Your task to perform on an android device: open a bookmark in the chrome app Image 0: 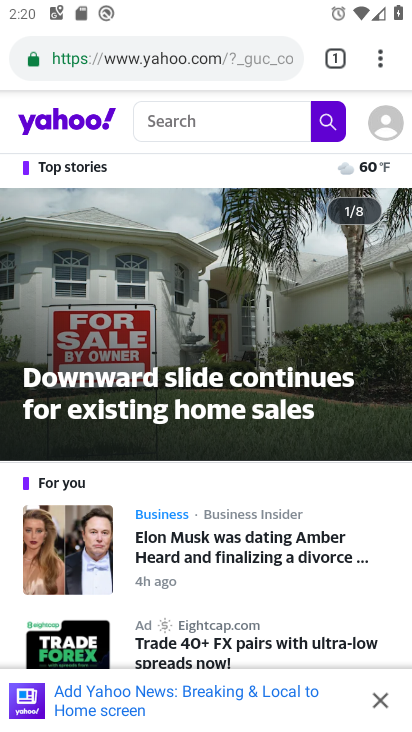
Step 0: click (375, 63)
Your task to perform on an android device: open a bookmark in the chrome app Image 1: 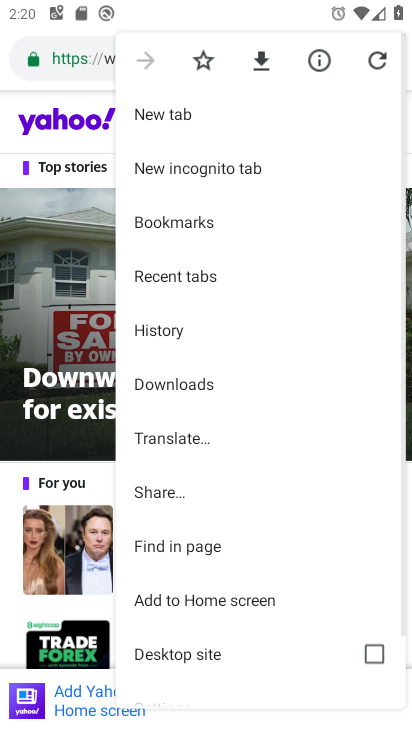
Step 1: click (196, 229)
Your task to perform on an android device: open a bookmark in the chrome app Image 2: 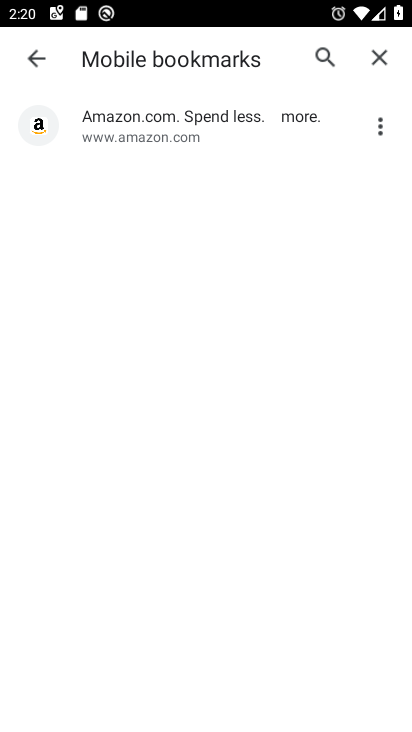
Step 2: click (165, 133)
Your task to perform on an android device: open a bookmark in the chrome app Image 3: 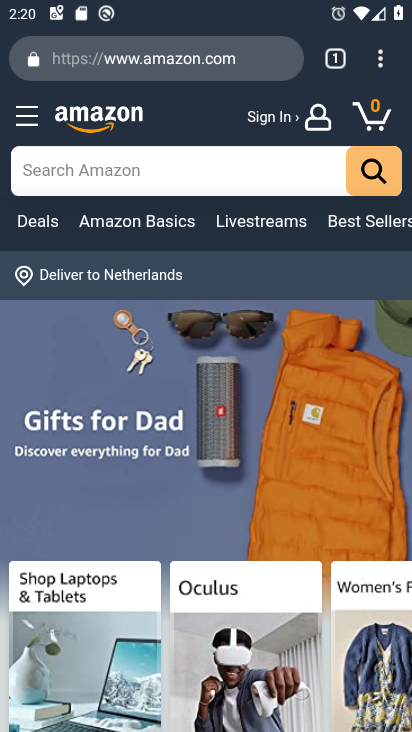
Step 3: task complete